Your task to perform on an android device: change alarm snooze length Image 0: 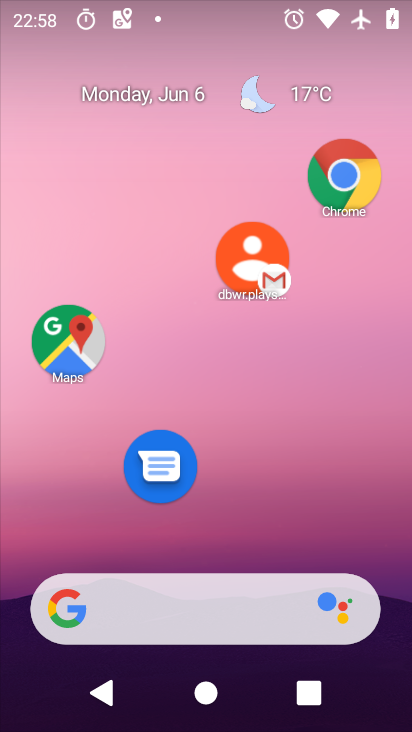
Step 0: drag from (209, 555) to (231, 0)
Your task to perform on an android device: change alarm snooze length Image 1: 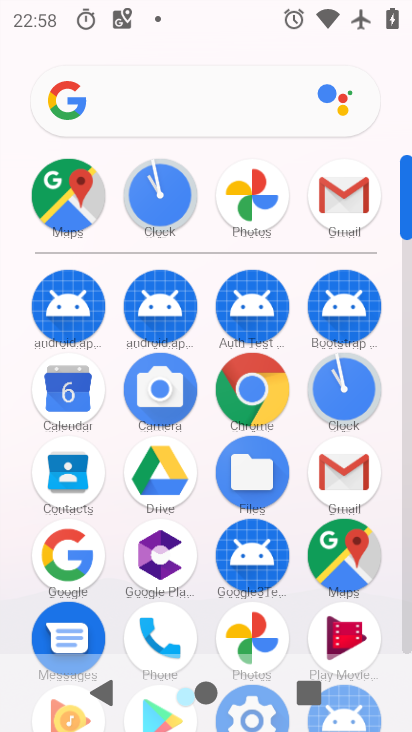
Step 1: click (348, 397)
Your task to perform on an android device: change alarm snooze length Image 2: 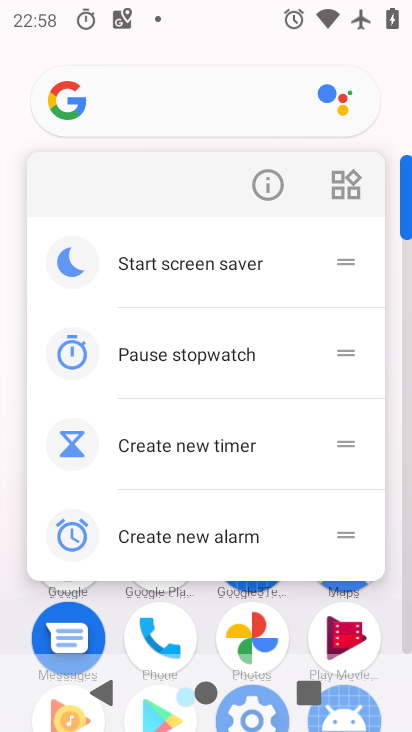
Step 2: click (280, 192)
Your task to perform on an android device: change alarm snooze length Image 3: 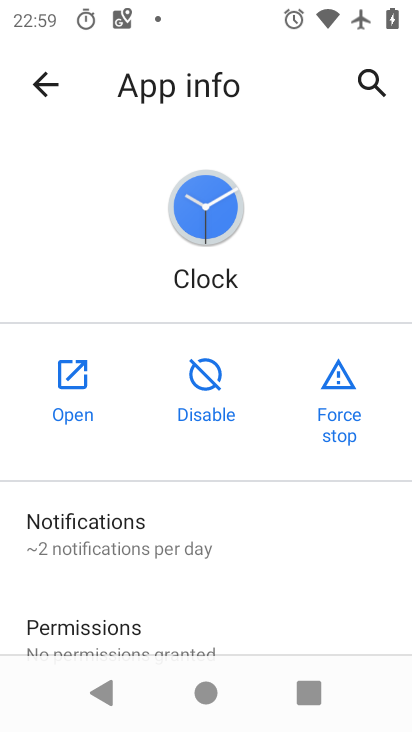
Step 3: click (50, 384)
Your task to perform on an android device: change alarm snooze length Image 4: 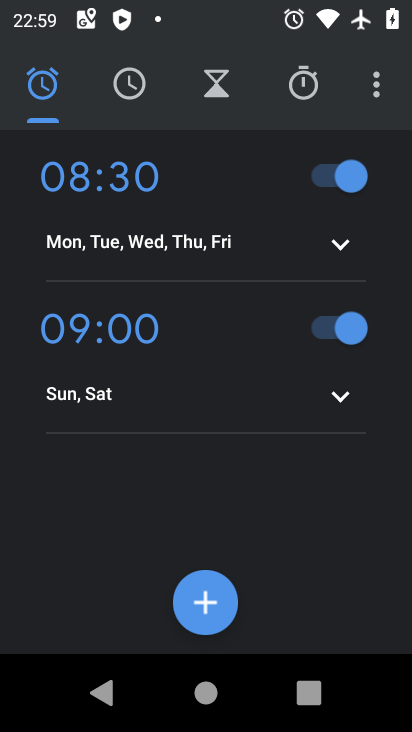
Step 4: click (369, 102)
Your task to perform on an android device: change alarm snooze length Image 5: 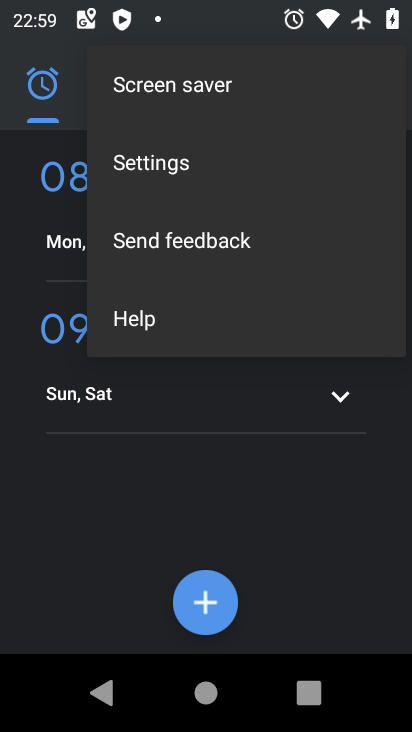
Step 5: click (196, 165)
Your task to perform on an android device: change alarm snooze length Image 6: 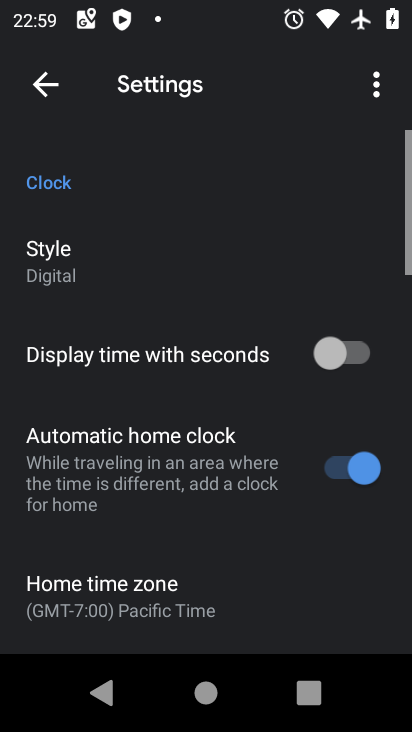
Step 6: drag from (184, 457) to (222, 91)
Your task to perform on an android device: change alarm snooze length Image 7: 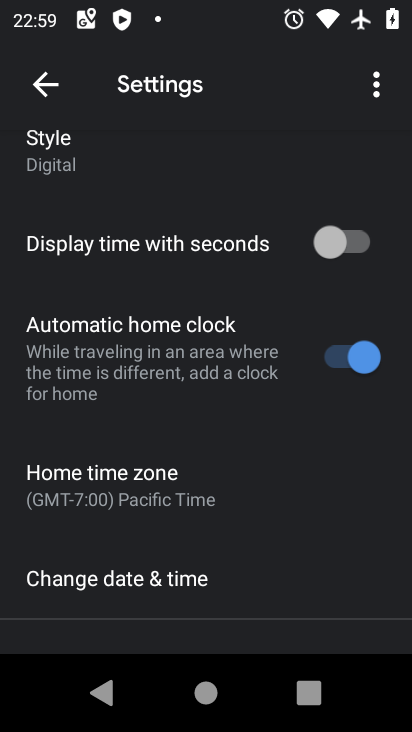
Step 7: drag from (178, 546) to (317, 57)
Your task to perform on an android device: change alarm snooze length Image 8: 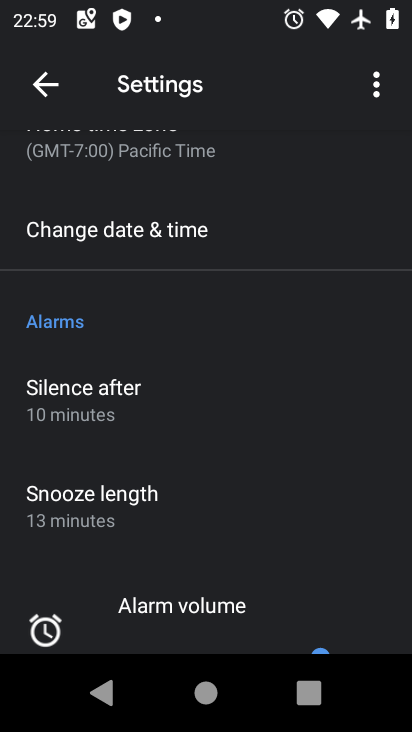
Step 8: click (175, 510)
Your task to perform on an android device: change alarm snooze length Image 9: 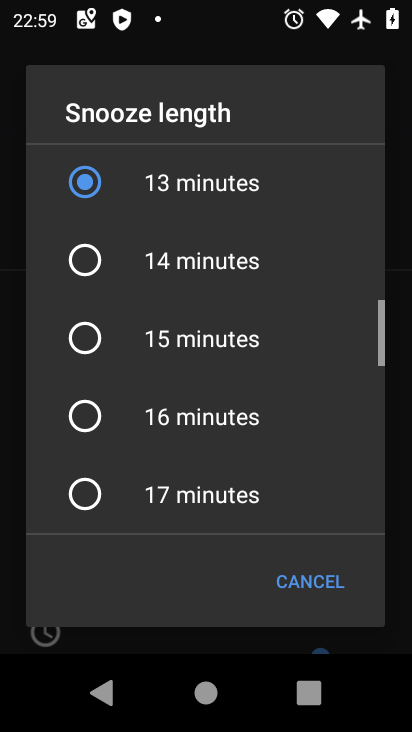
Step 9: drag from (160, 493) to (261, 43)
Your task to perform on an android device: change alarm snooze length Image 10: 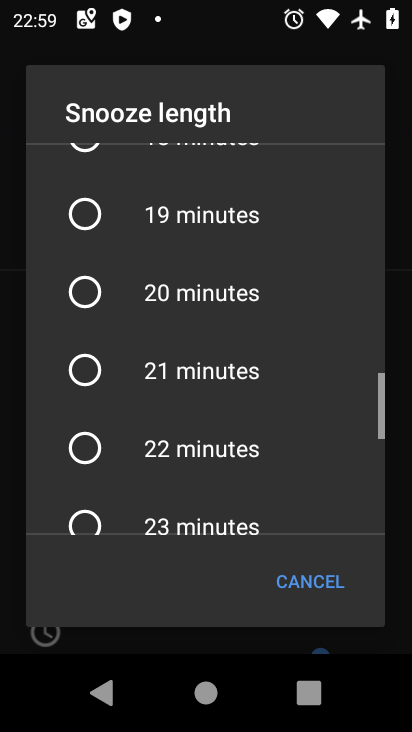
Step 10: click (127, 379)
Your task to perform on an android device: change alarm snooze length Image 11: 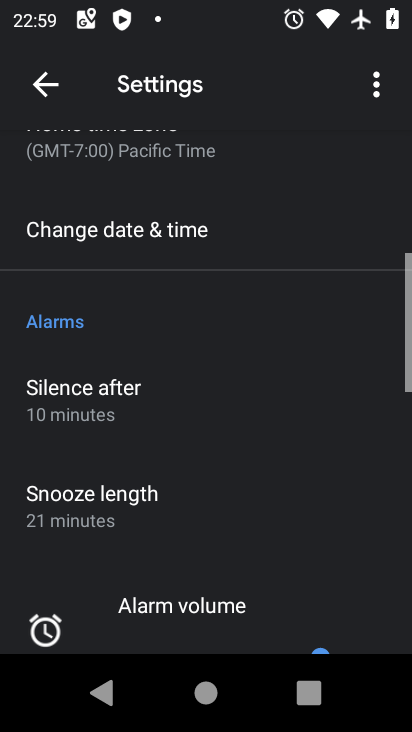
Step 11: task complete